Your task to perform on an android device: Go to network settings Image 0: 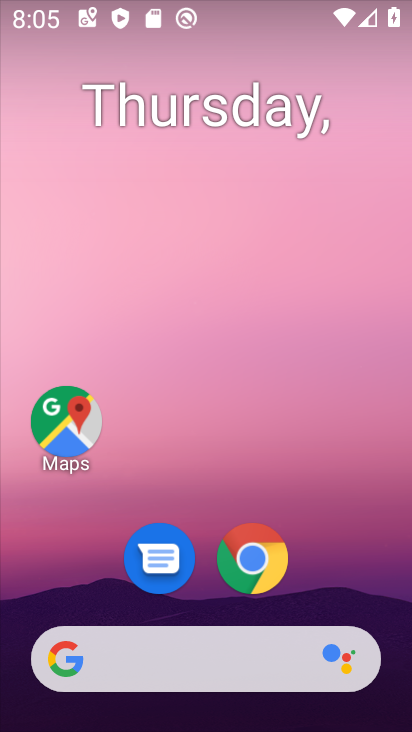
Step 0: drag from (213, 622) to (210, 112)
Your task to perform on an android device: Go to network settings Image 1: 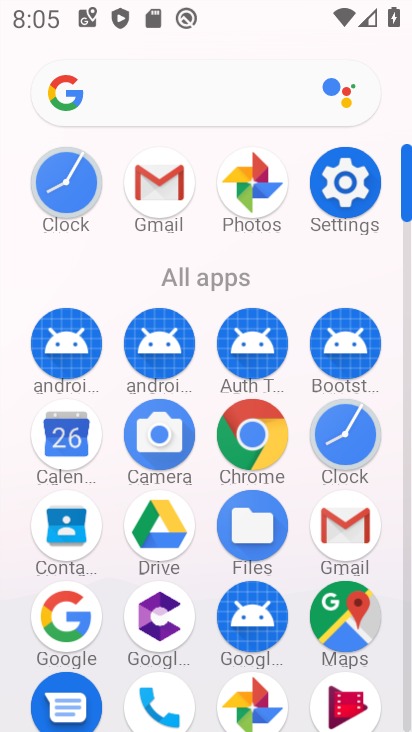
Step 1: click (337, 187)
Your task to perform on an android device: Go to network settings Image 2: 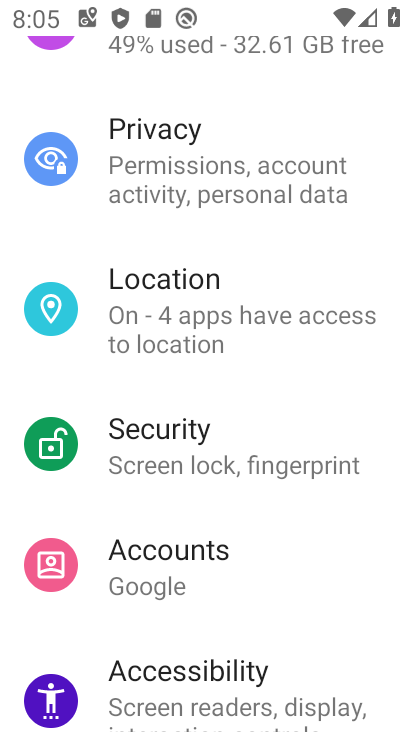
Step 2: drag from (257, 205) to (276, 615)
Your task to perform on an android device: Go to network settings Image 3: 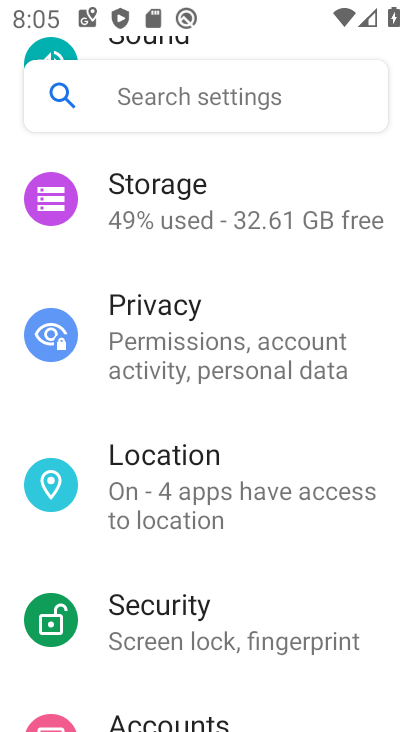
Step 3: drag from (321, 157) to (276, 617)
Your task to perform on an android device: Go to network settings Image 4: 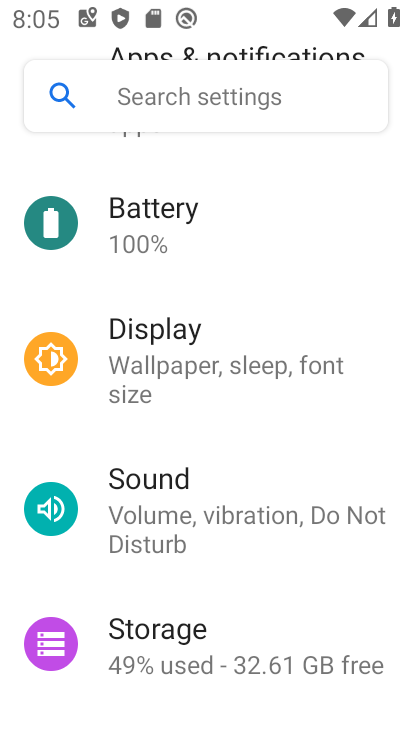
Step 4: drag from (268, 161) to (253, 545)
Your task to perform on an android device: Go to network settings Image 5: 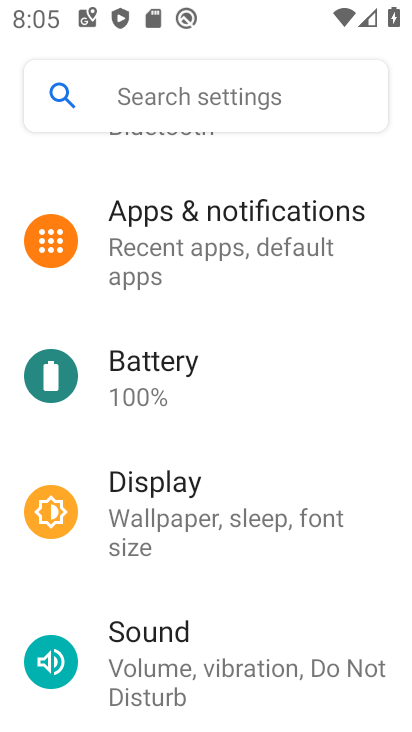
Step 5: drag from (240, 187) to (263, 551)
Your task to perform on an android device: Go to network settings Image 6: 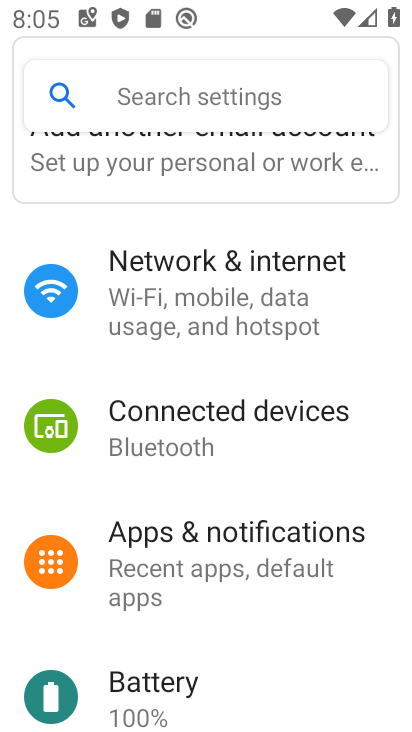
Step 6: click (235, 305)
Your task to perform on an android device: Go to network settings Image 7: 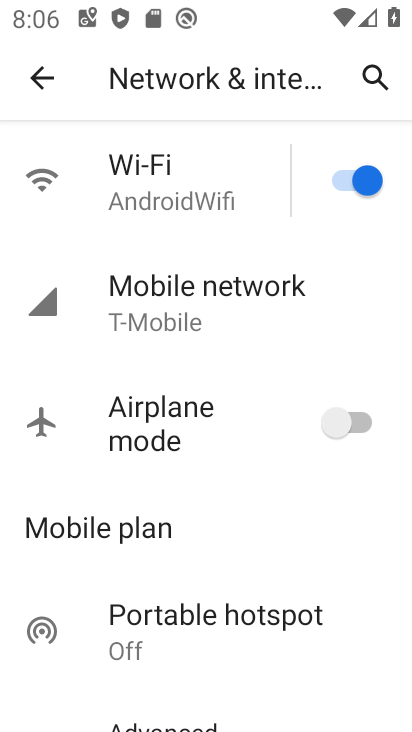
Step 7: click (206, 308)
Your task to perform on an android device: Go to network settings Image 8: 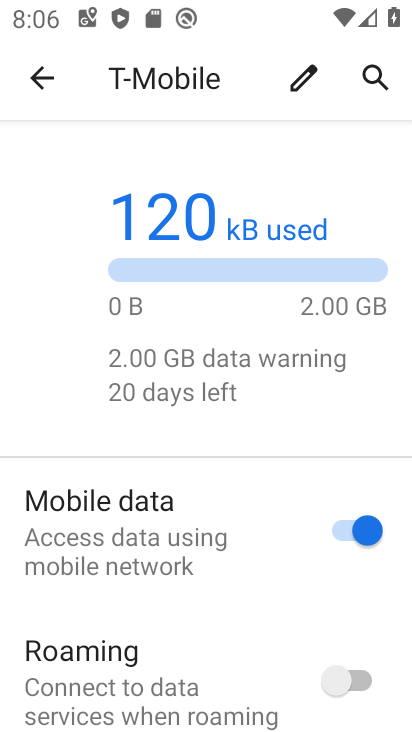
Step 8: task complete